Your task to perform on an android device: View the shopping cart on target.com. Add "logitech g910" to the cart on target.com Image 0: 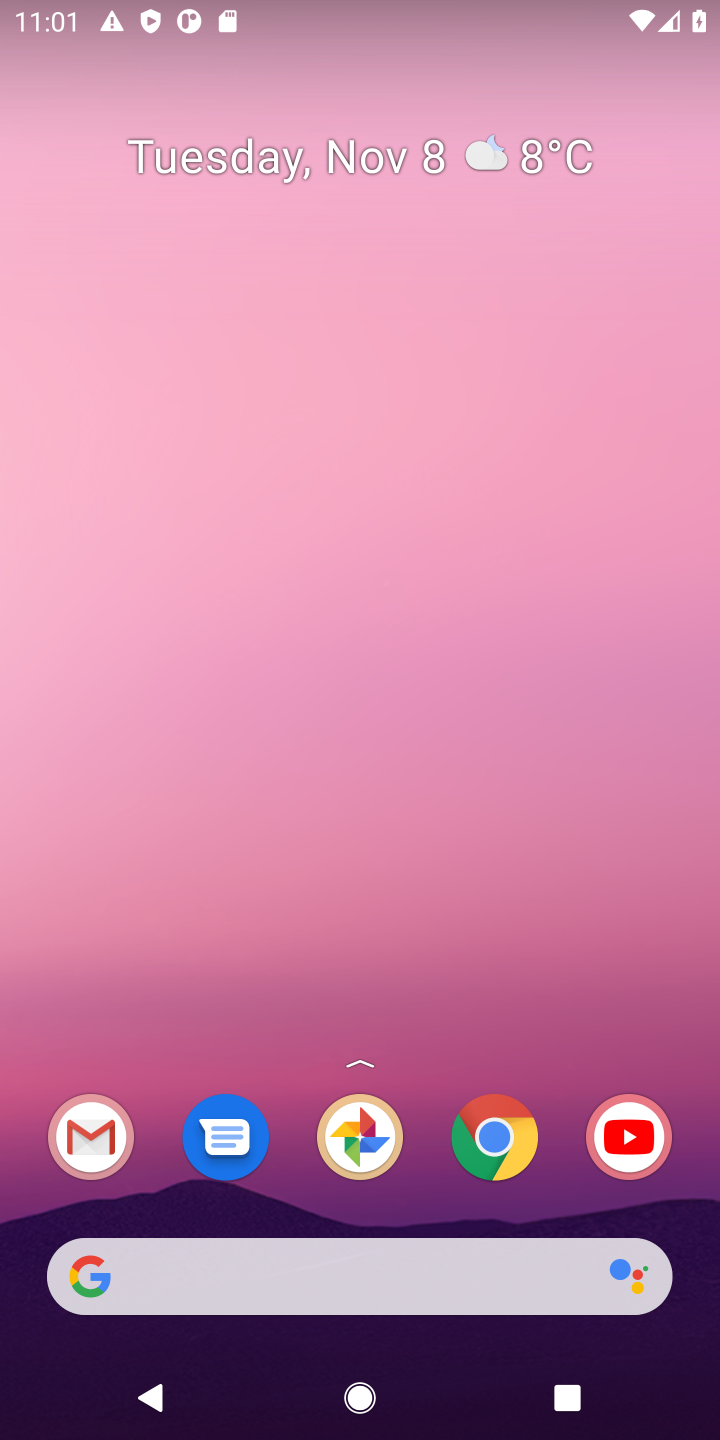
Step 0: click (478, 1140)
Your task to perform on an android device: View the shopping cart on target.com. Add "logitech g910" to the cart on target.com Image 1: 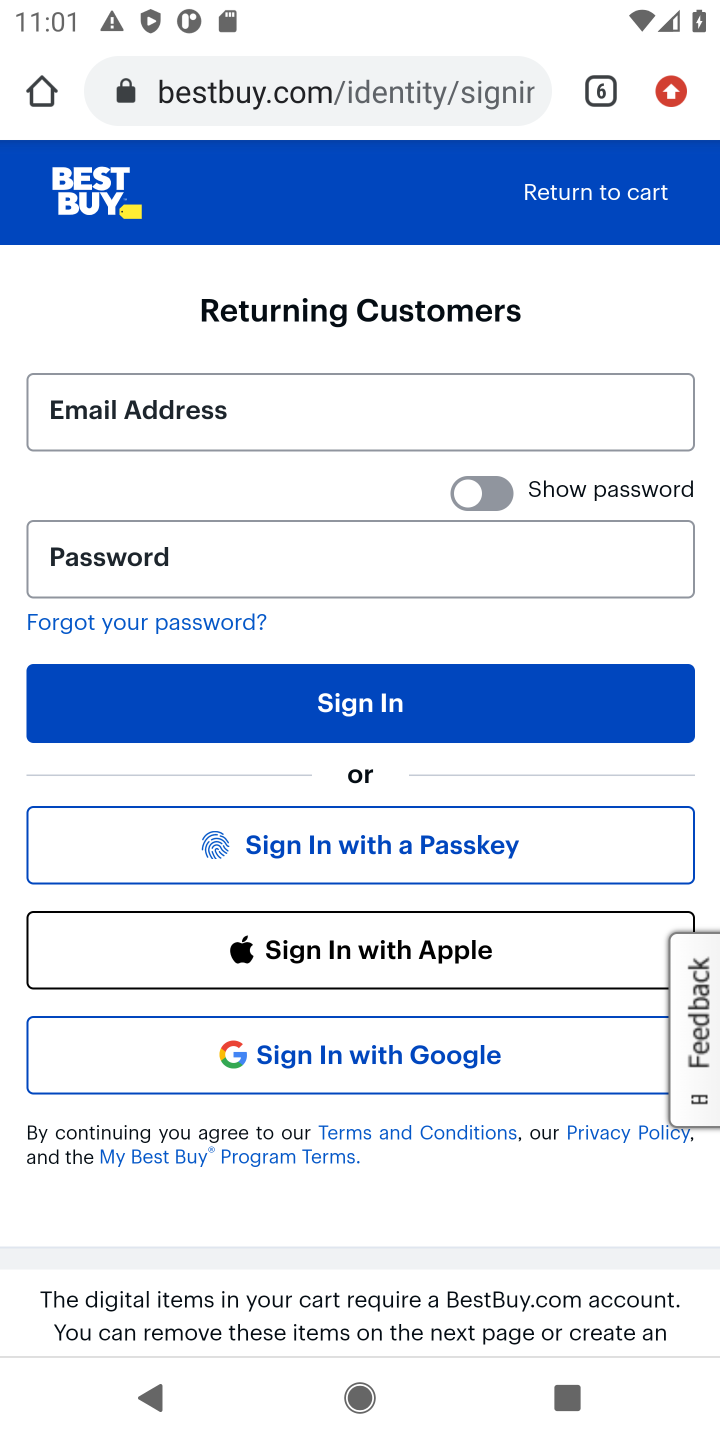
Step 1: click (603, 87)
Your task to perform on an android device: View the shopping cart on target.com. Add "logitech g910" to the cart on target.com Image 2: 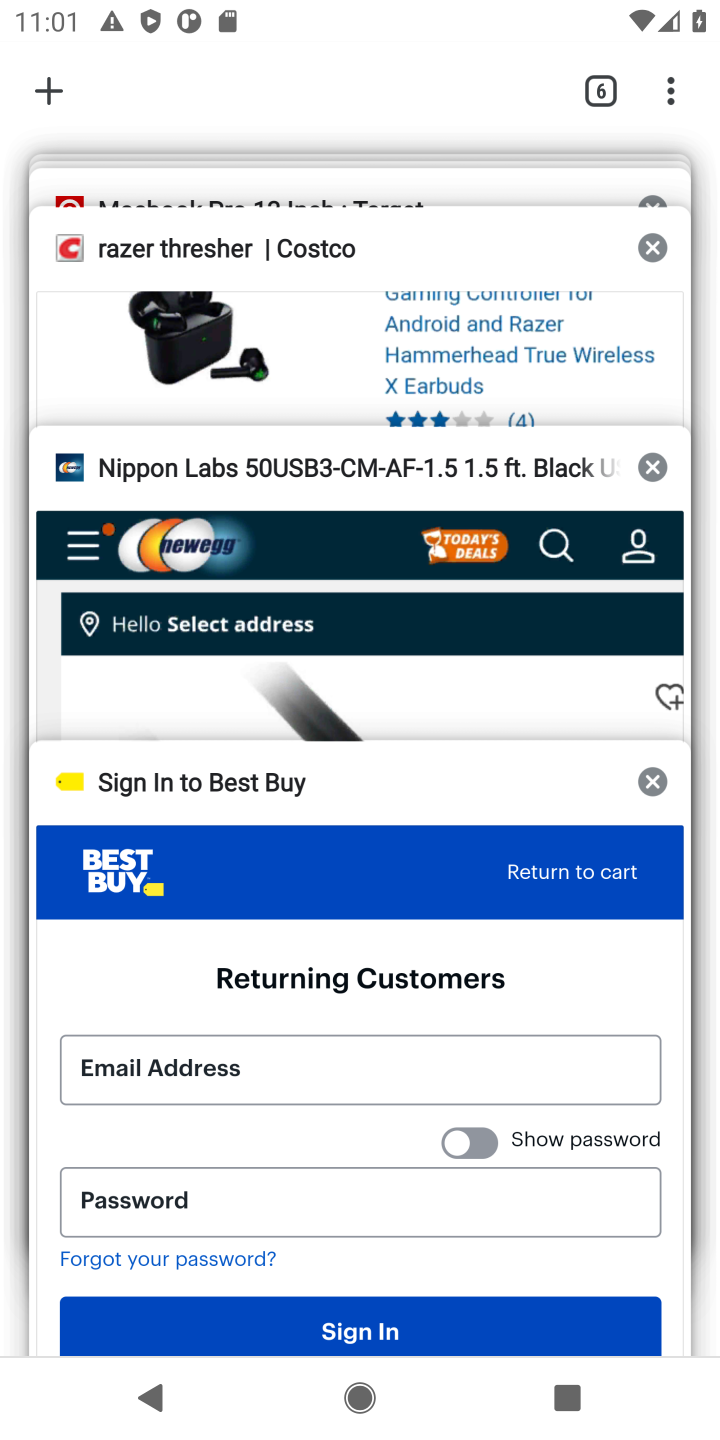
Step 2: click (269, 191)
Your task to perform on an android device: View the shopping cart on target.com. Add "logitech g910" to the cart on target.com Image 3: 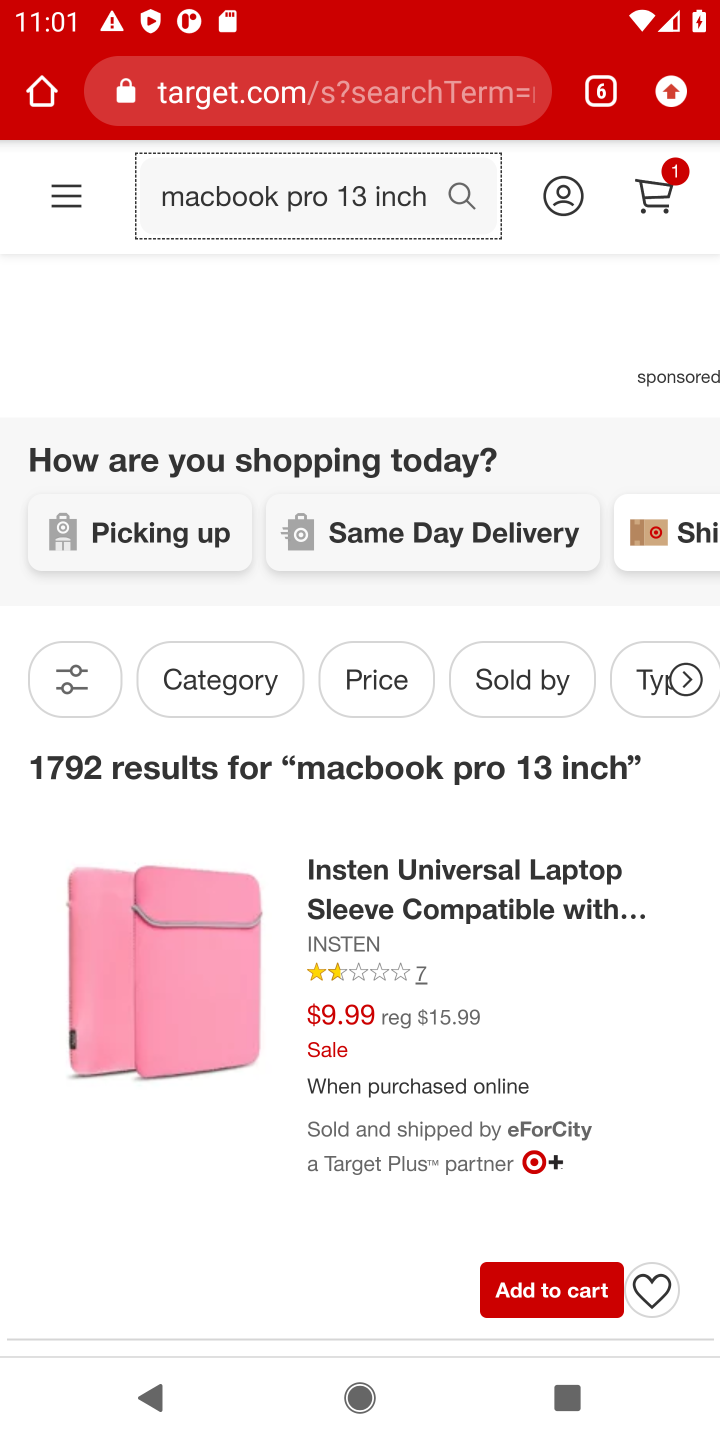
Step 3: click (370, 193)
Your task to perform on an android device: View the shopping cart on target.com. Add "logitech g910" to the cart on target.com Image 4: 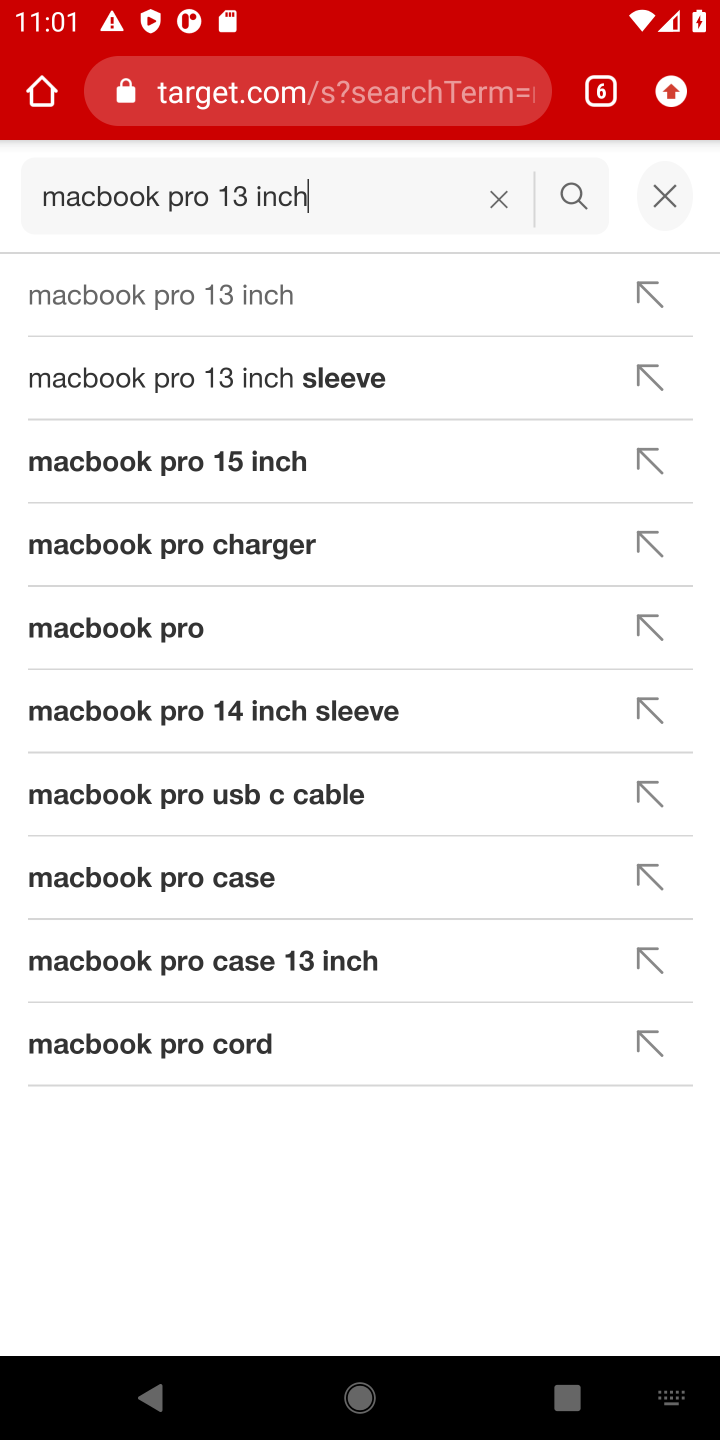
Step 4: click (498, 198)
Your task to perform on an android device: View the shopping cart on target.com. Add "logitech g910" to the cart on target.com Image 5: 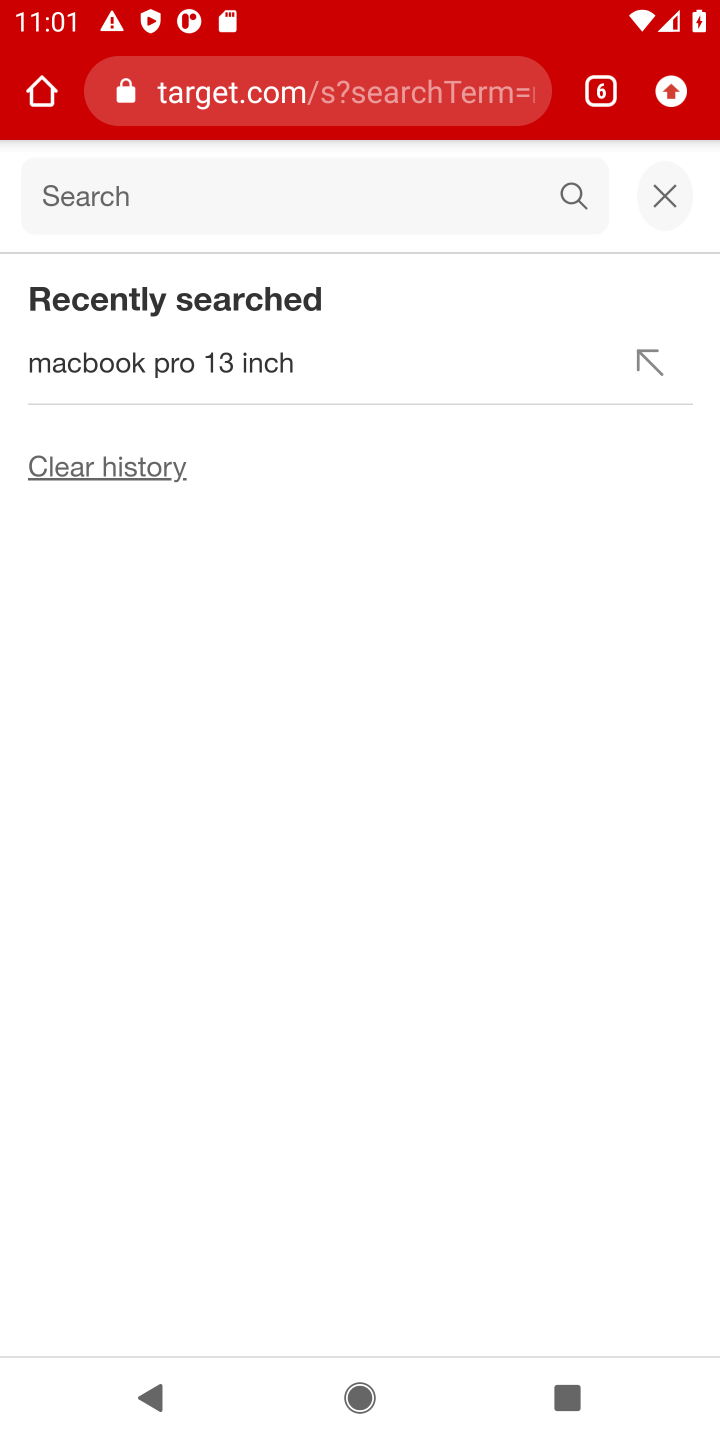
Step 5: type "logitech g910"
Your task to perform on an android device: View the shopping cart on target.com. Add "logitech g910" to the cart on target.com Image 6: 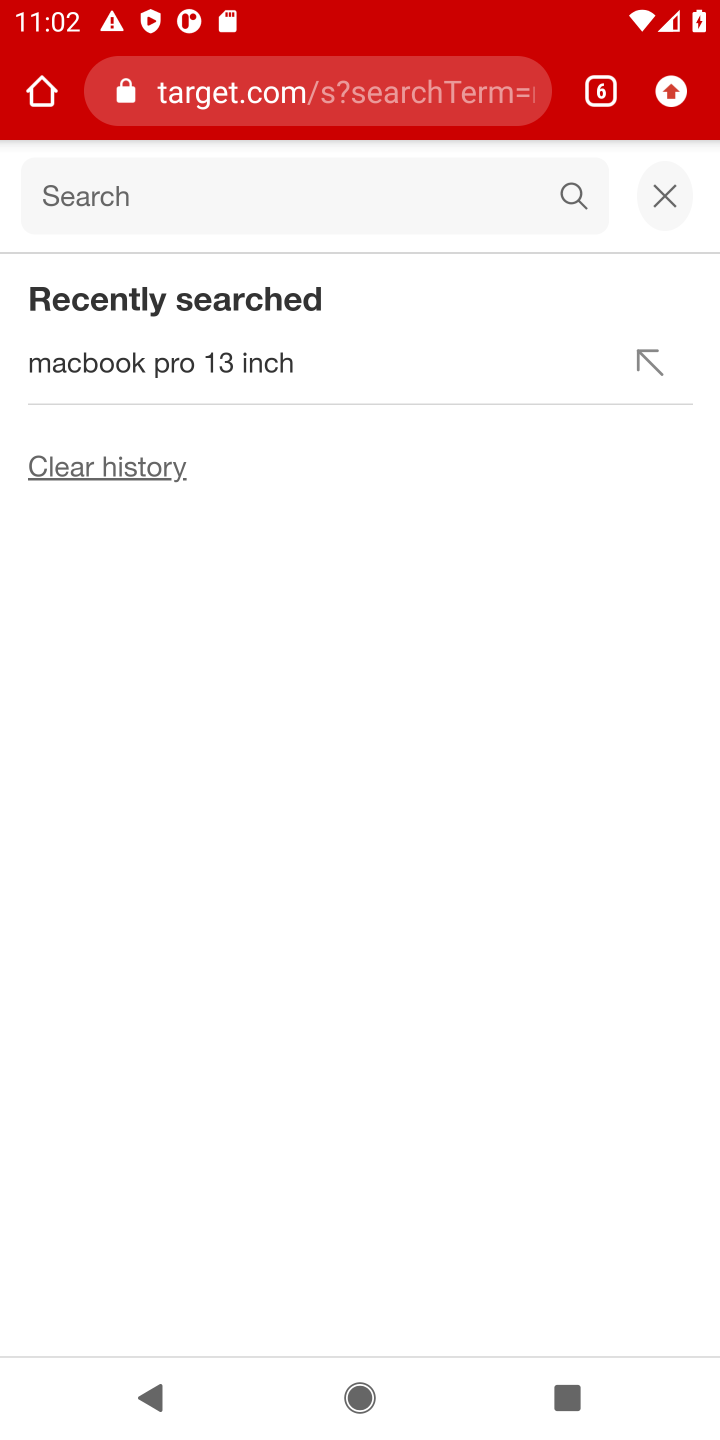
Step 6: type "logitech g910"
Your task to perform on an android device: View the shopping cart on target.com. Add "logitech g910" to the cart on target.com Image 7: 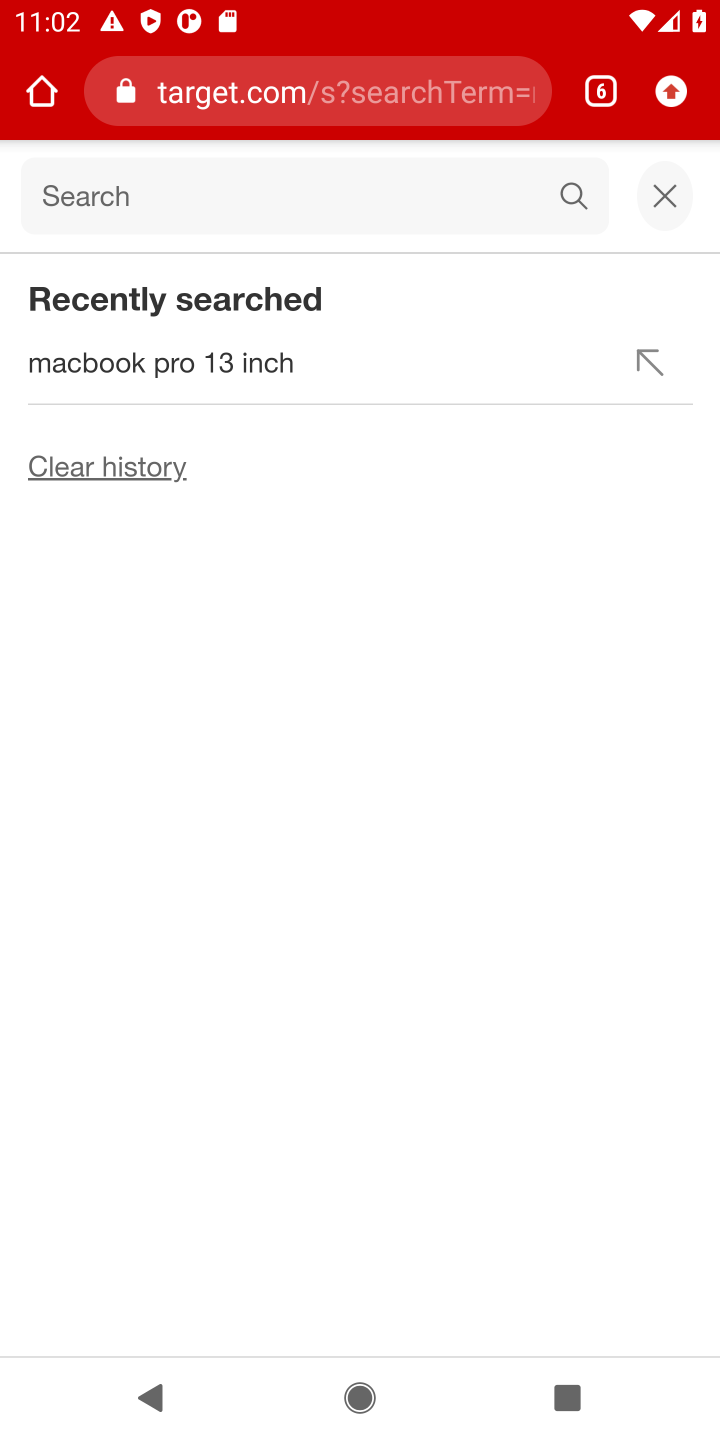
Step 7: type "logitech g910"
Your task to perform on an android device: View the shopping cart on target.com. Add "logitech g910" to the cart on target.com Image 8: 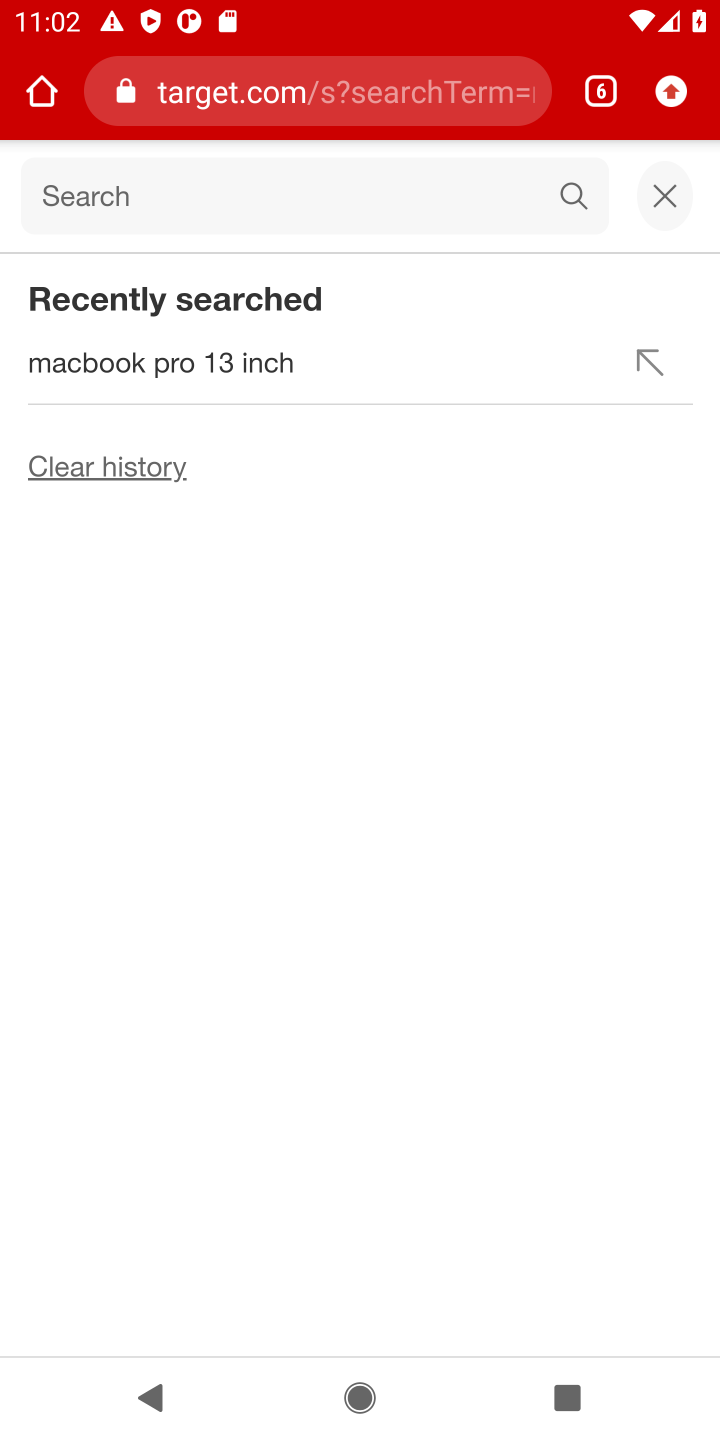
Step 8: click (160, 176)
Your task to perform on an android device: View the shopping cart on target.com. Add "logitech g910" to the cart on target.com Image 9: 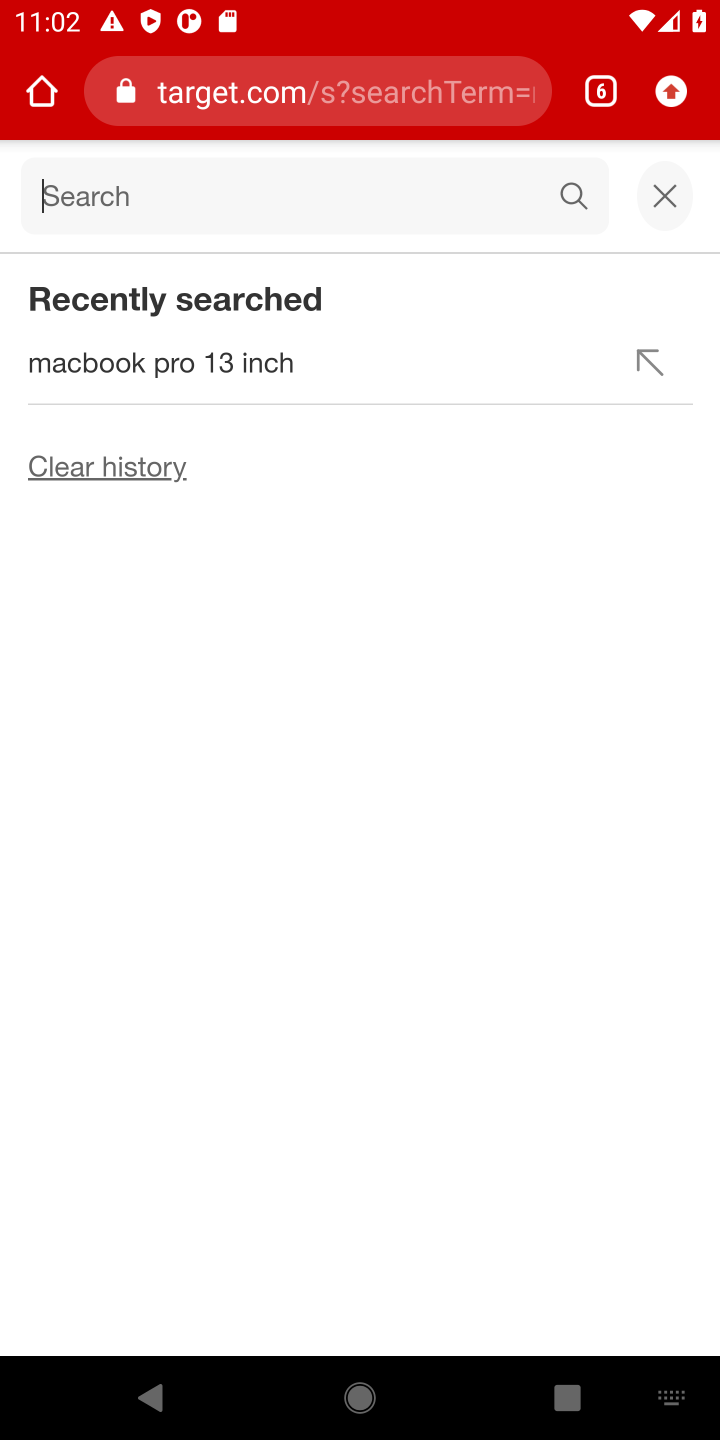
Step 9: type "logitech g910"
Your task to perform on an android device: View the shopping cart on target.com. Add "logitech g910" to the cart on target.com Image 10: 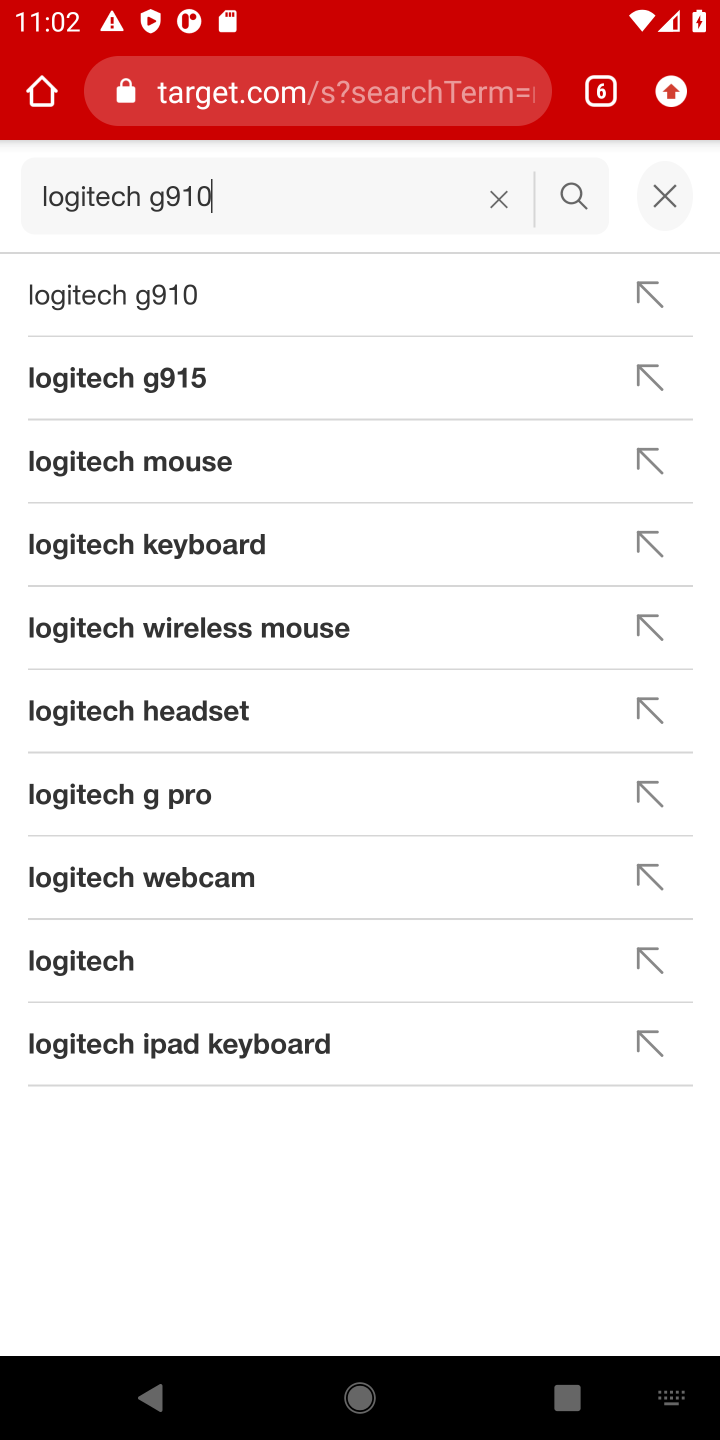
Step 10: click (145, 295)
Your task to perform on an android device: View the shopping cart on target.com. Add "logitech g910" to the cart on target.com Image 11: 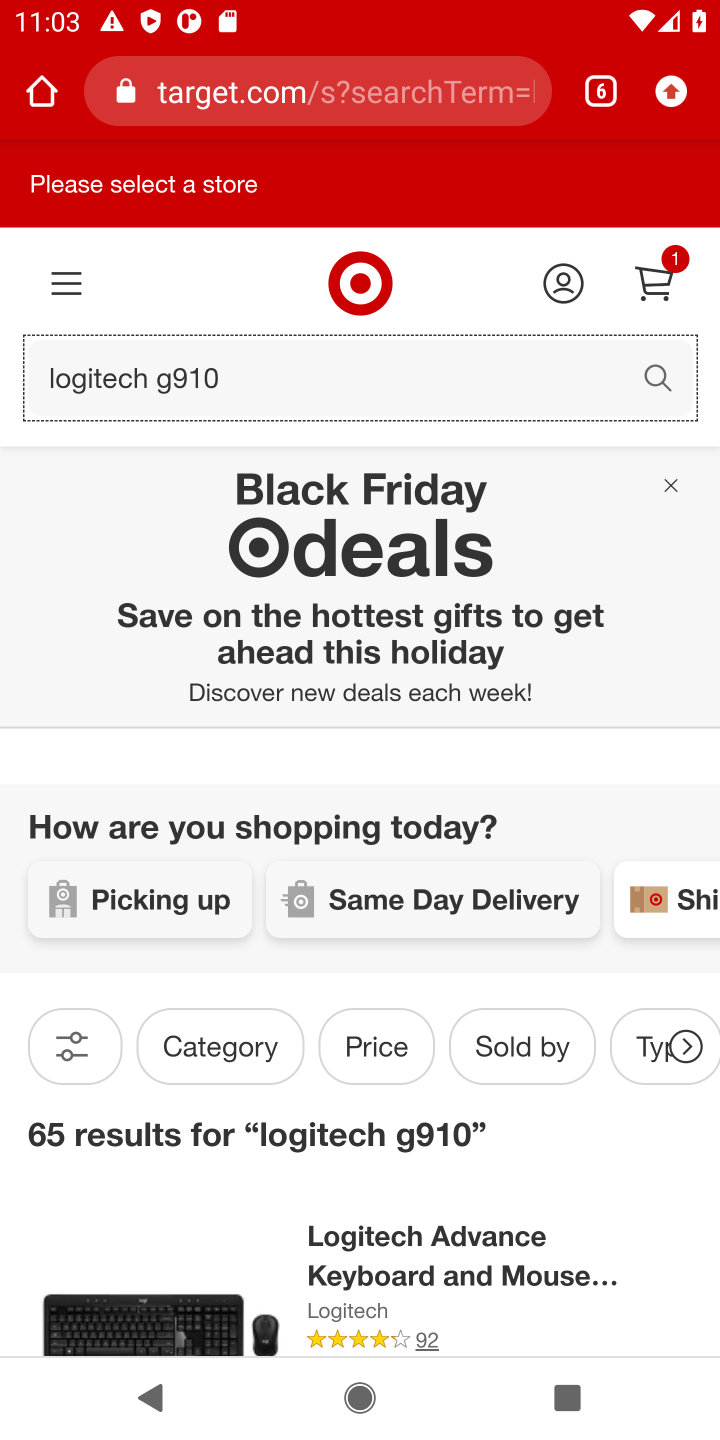
Step 11: task complete